Your task to perform on an android device: Open settings Image 0: 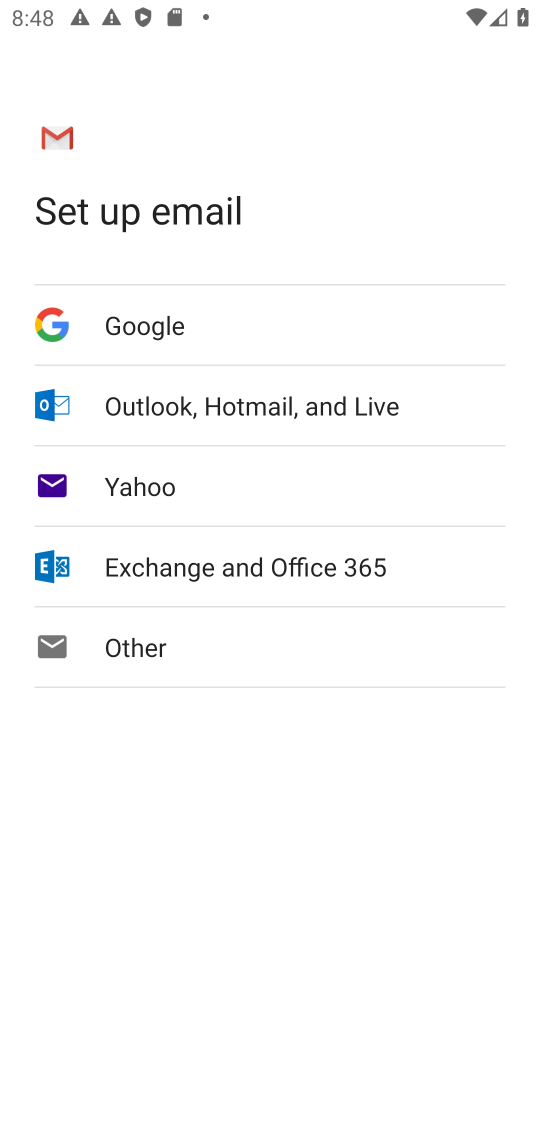
Step 0: press home button
Your task to perform on an android device: Open settings Image 1: 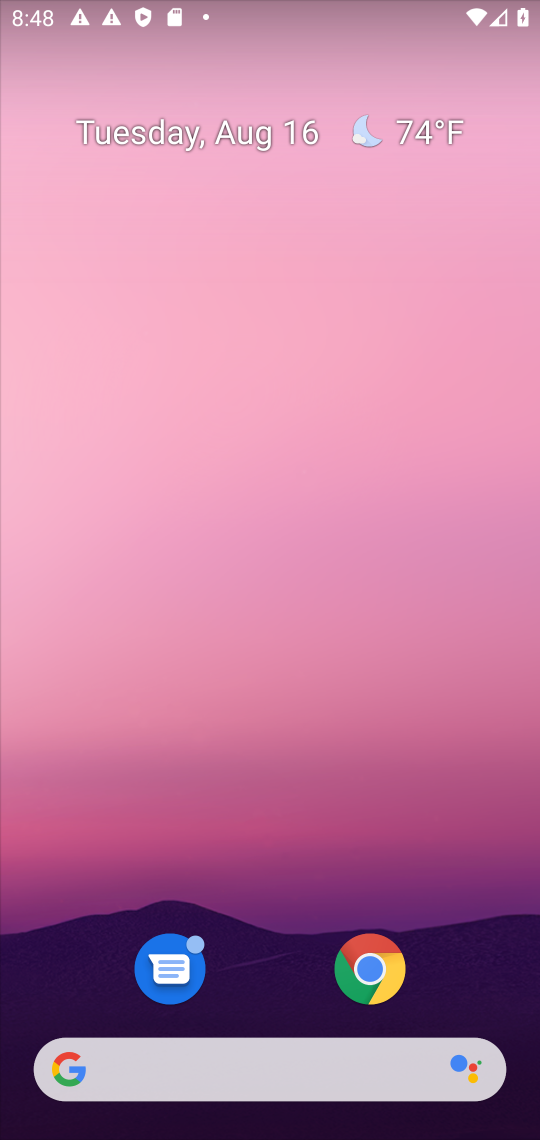
Step 1: drag from (244, 1021) to (289, 257)
Your task to perform on an android device: Open settings Image 2: 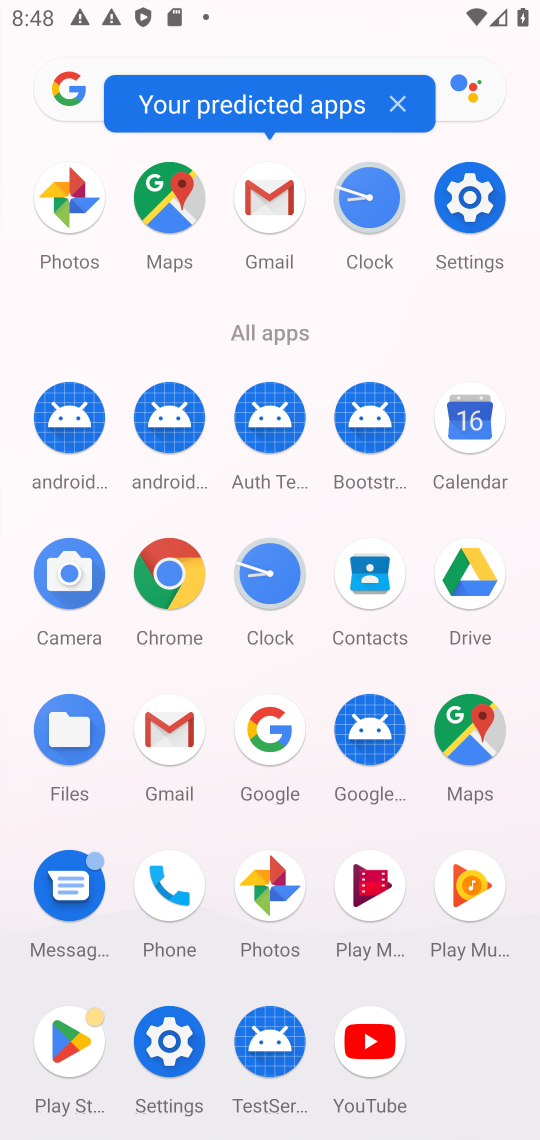
Step 2: click (473, 195)
Your task to perform on an android device: Open settings Image 3: 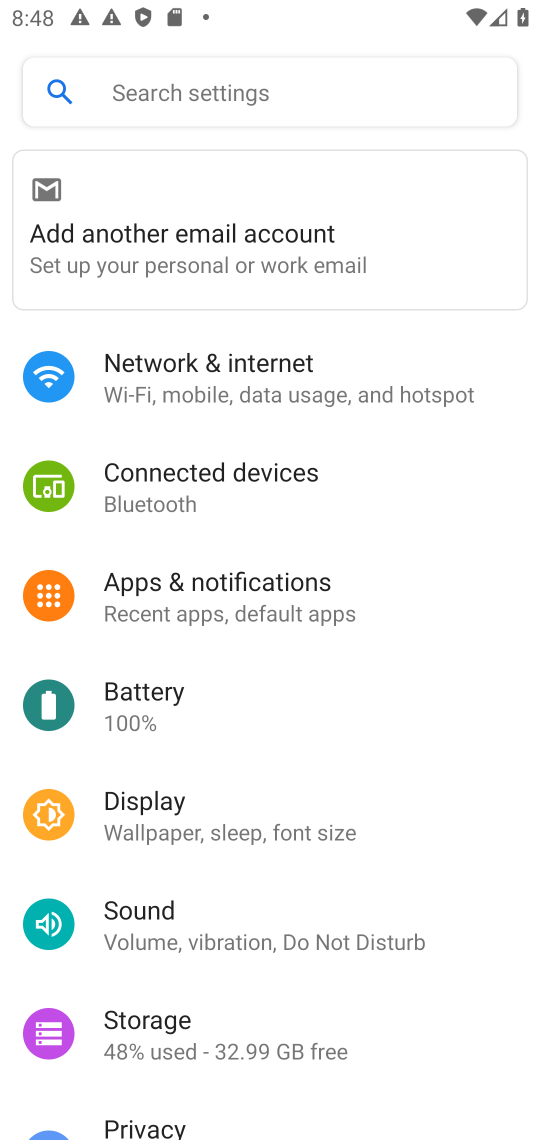
Step 3: task complete